Your task to perform on an android device: Open Reddit.com Image 0: 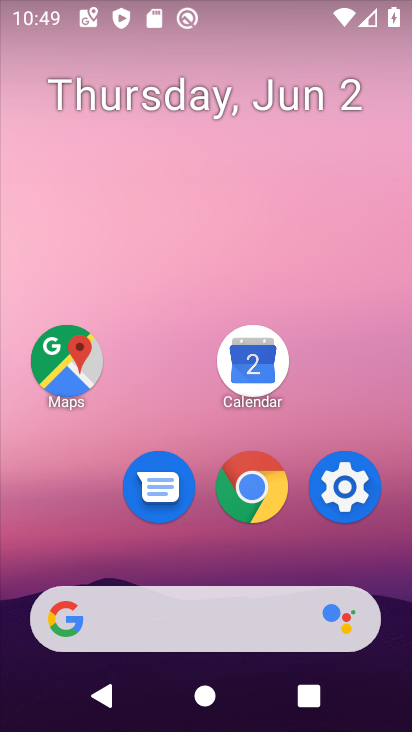
Step 0: click (259, 490)
Your task to perform on an android device: Open Reddit.com Image 1: 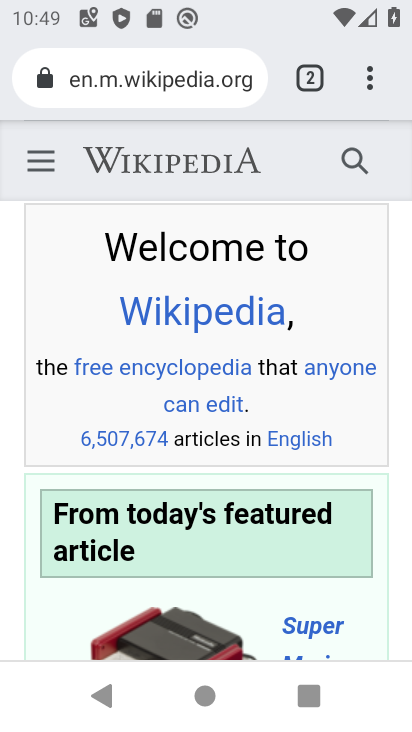
Step 1: click (145, 41)
Your task to perform on an android device: Open Reddit.com Image 2: 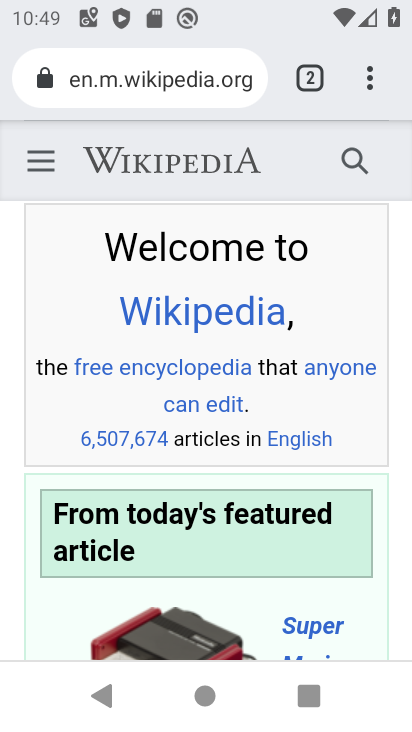
Step 2: click (133, 88)
Your task to perform on an android device: Open Reddit.com Image 3: 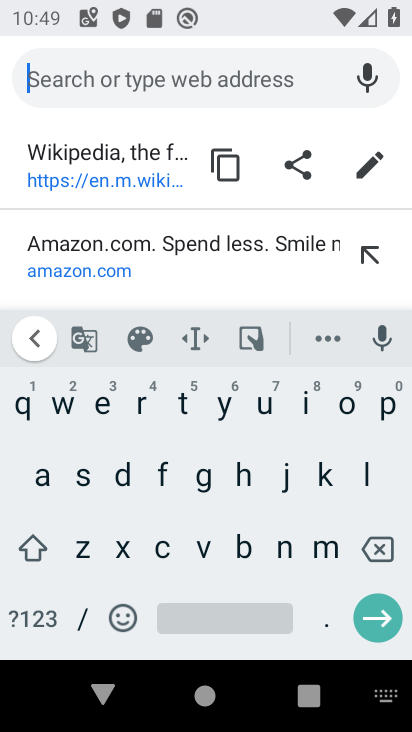
Step 3: click (136, 405)
Your task to perform on an android device: Open Reddit.com Image 4: 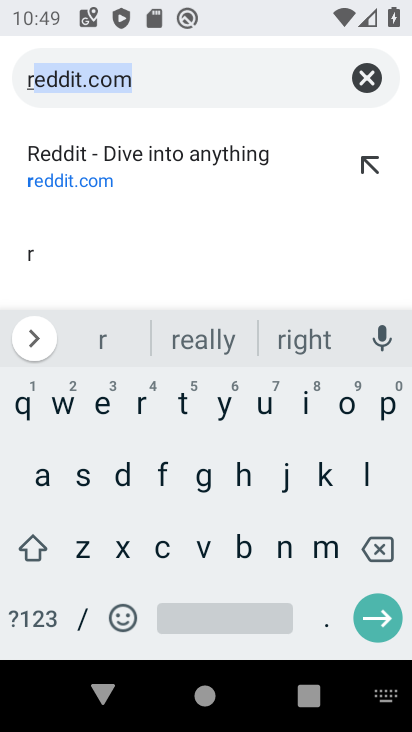
Step 4: click (97, 398)
Your task to perform on an android device: Open Reddit.com Image 5: 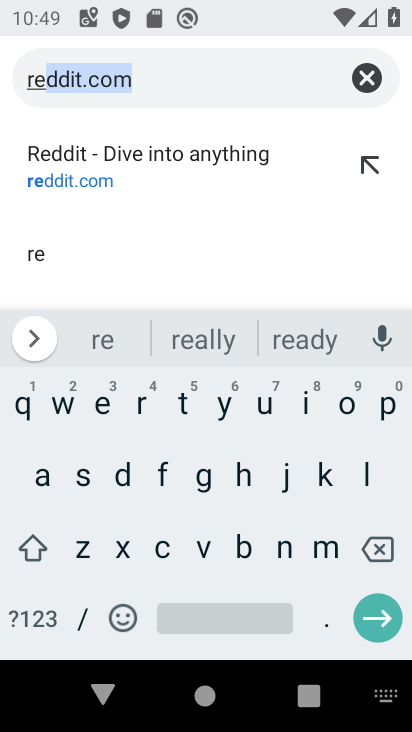
Step 5: click (169, 87)
Your task to perform on an android device: Open Reddit.com Image 6: 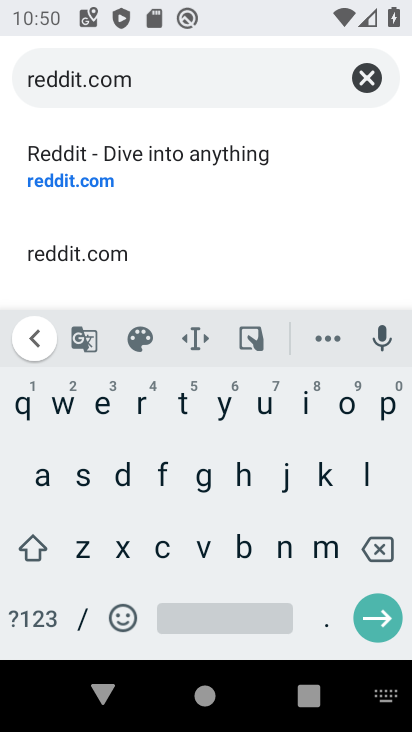
Step 6: click (376, 609)
Your task to perform on an android device: Open Reddit.com Image 7: 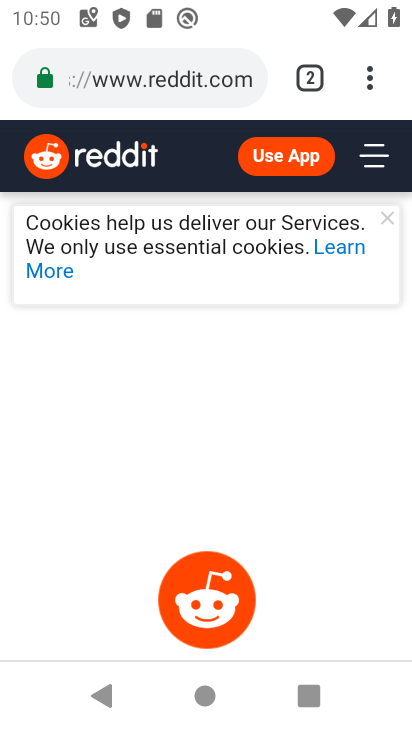
Step 7: task complete